Your task to perform on an android device: find snoozed emails in the gmail app Image 0: 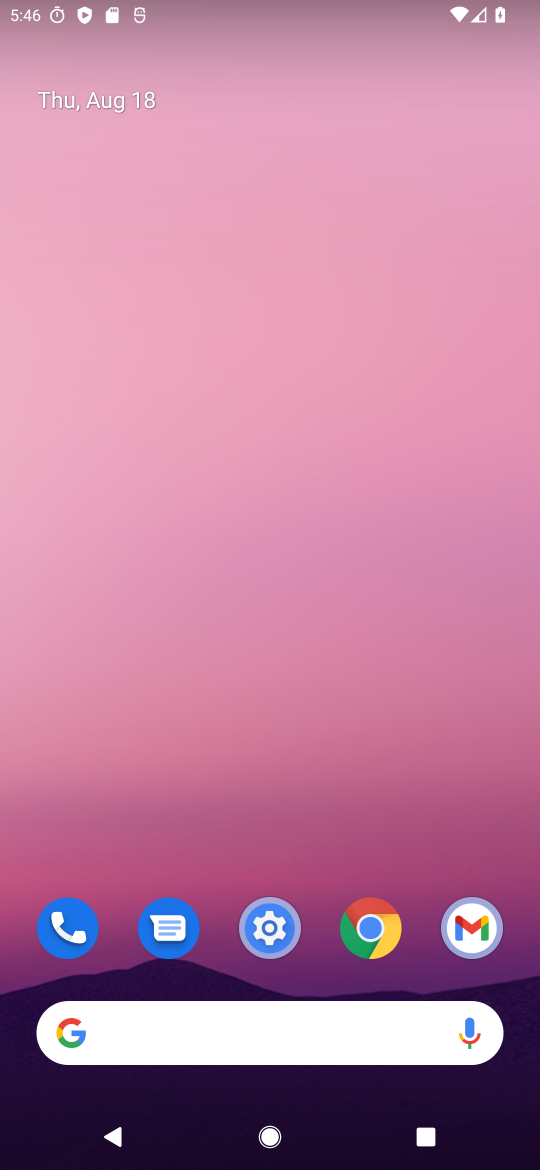
Step 0: drag from (275, 836) to (341, 18)
Your task to perform on an android device: find snoozed emails in the gmail app Image 1: 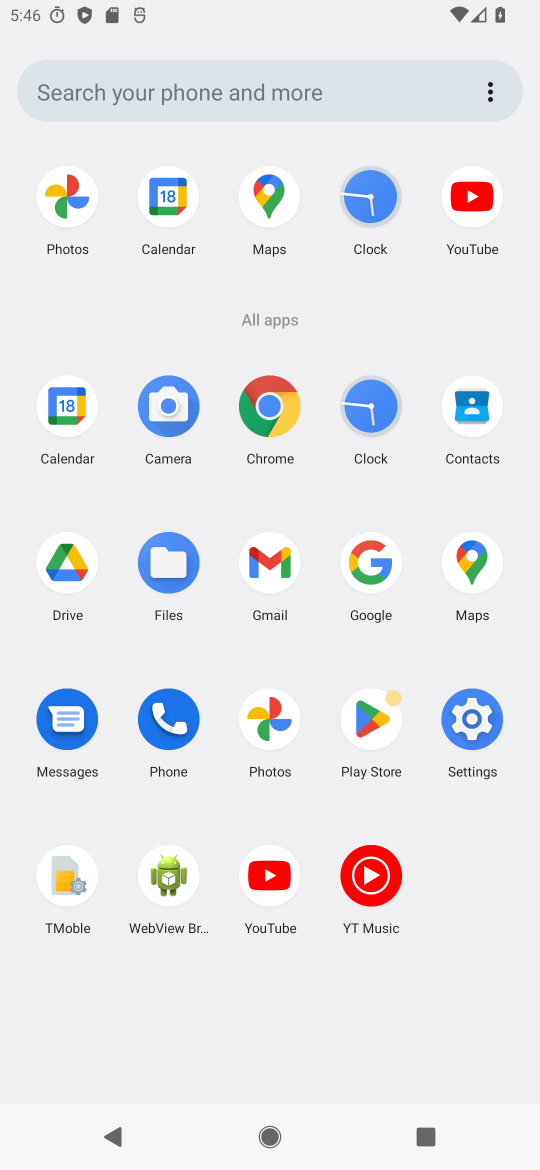
Step 1: click (267, 572)
Your task to perform on an android device: find snoozed emails in the gmail app Image 2: 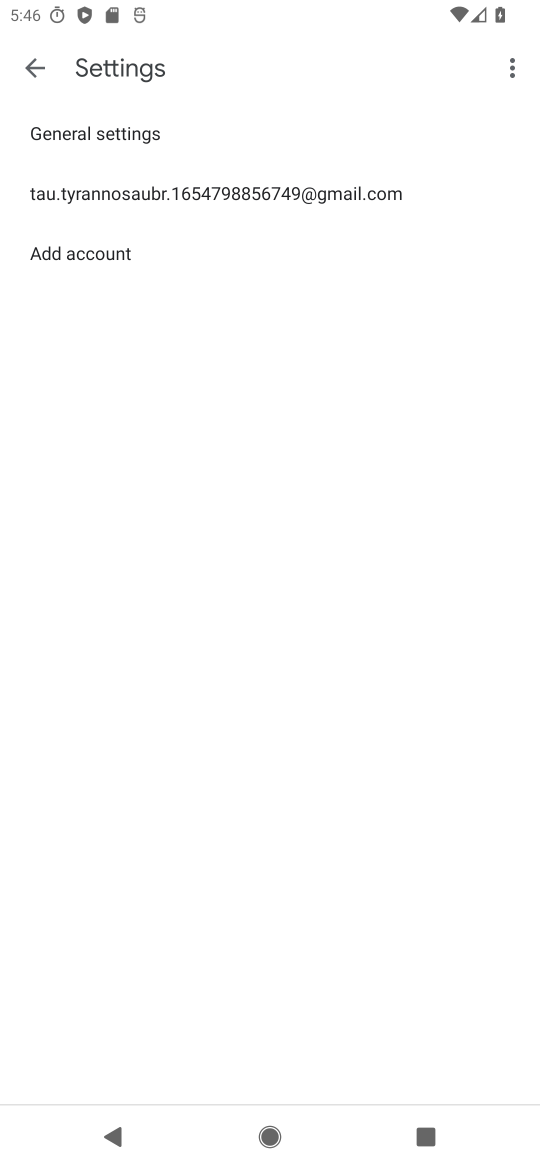
Step 2: press back button
Your task to perform on an android device: find snoozed emails in the gmail app Image 3: 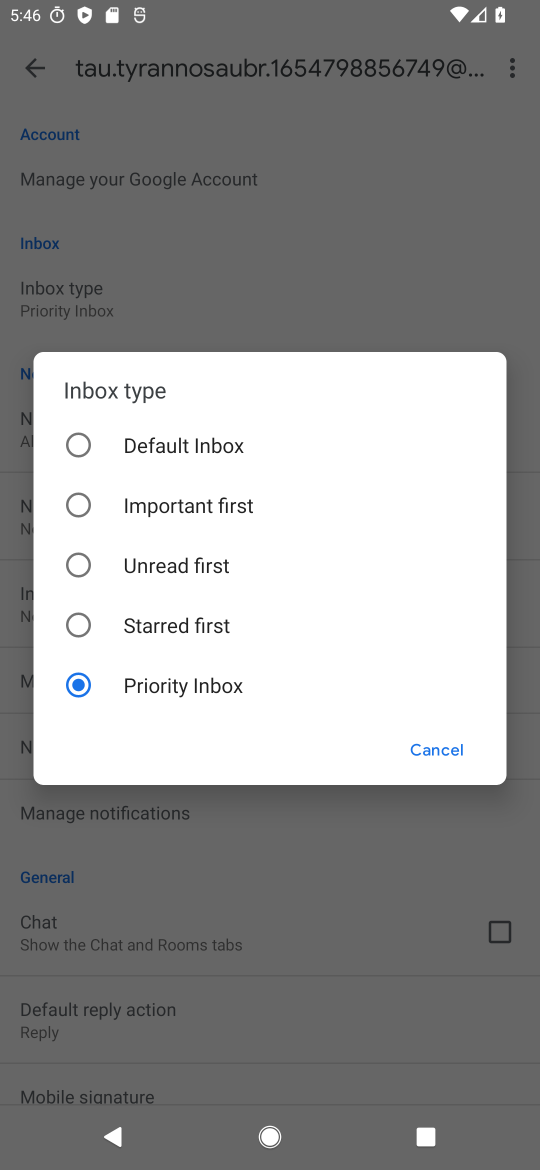
Step 3: press back button
Your task to perform on an android device: find snoozed emails in the gmail app Image 4: 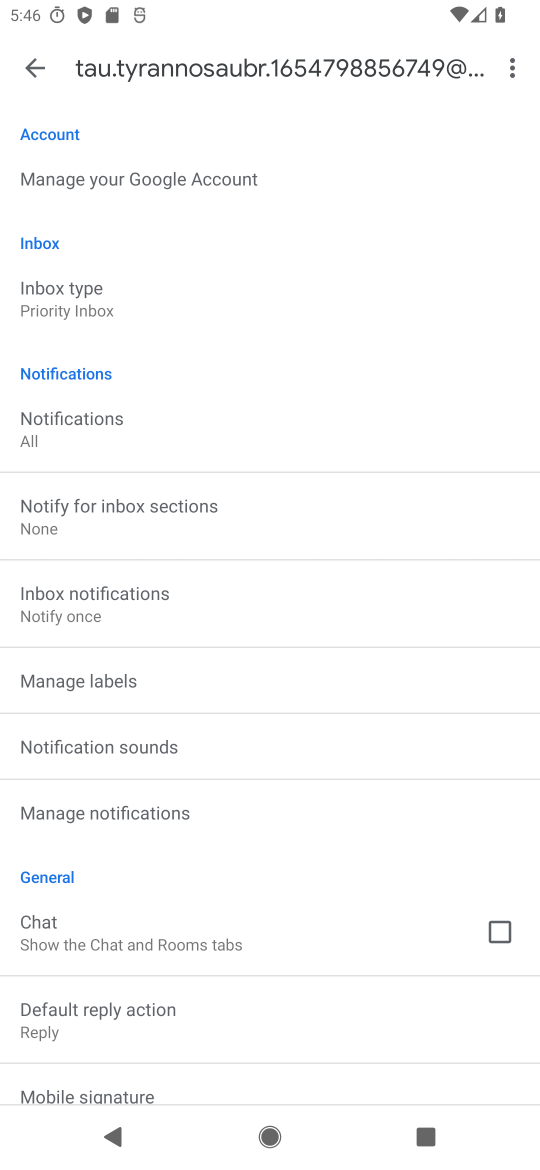
Step 4: drag from (167, 1035) to (286, 341)
Your task to perform on an android device: find snoozed emails in the gmail app Image 5: 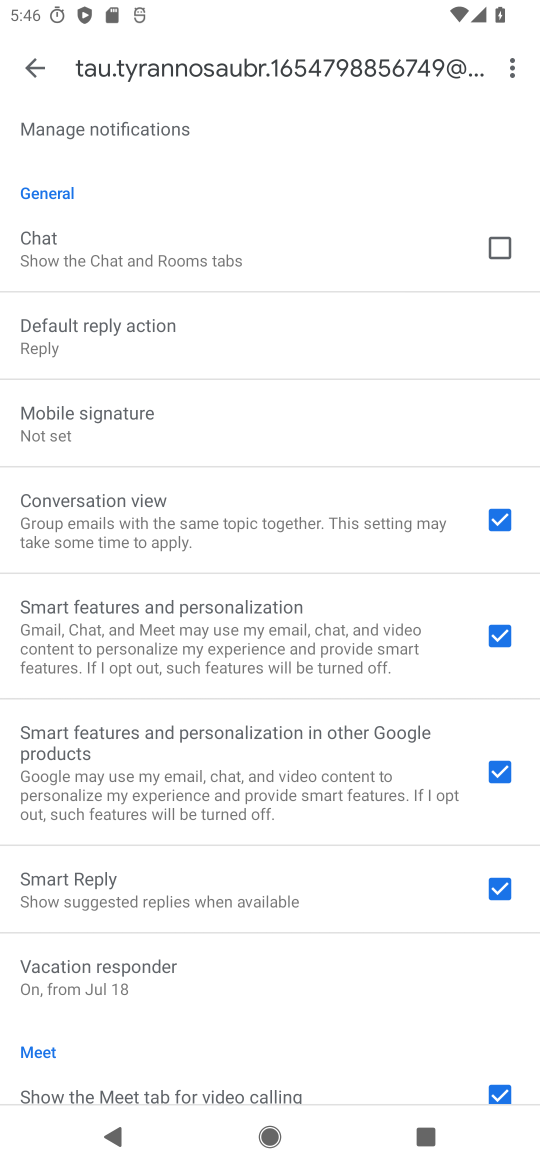
Step 5: press back button
Your task to perform on an android device: find snoozed emails in the gmail app Image 6: 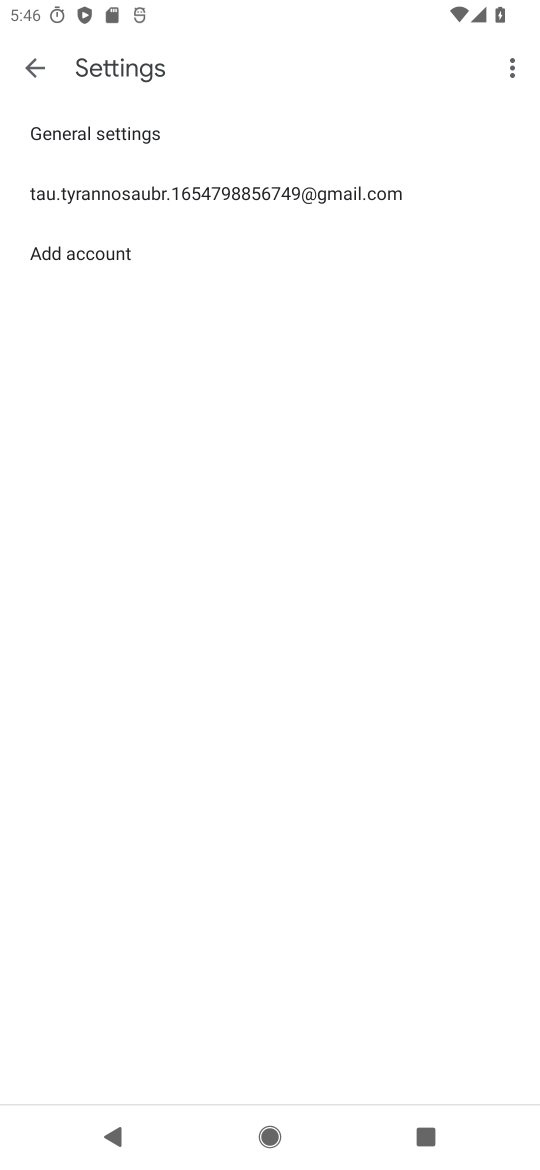
Step 6: press back button
Your task to perform on an android device: find snoozed emails in the gmail app Image 7: 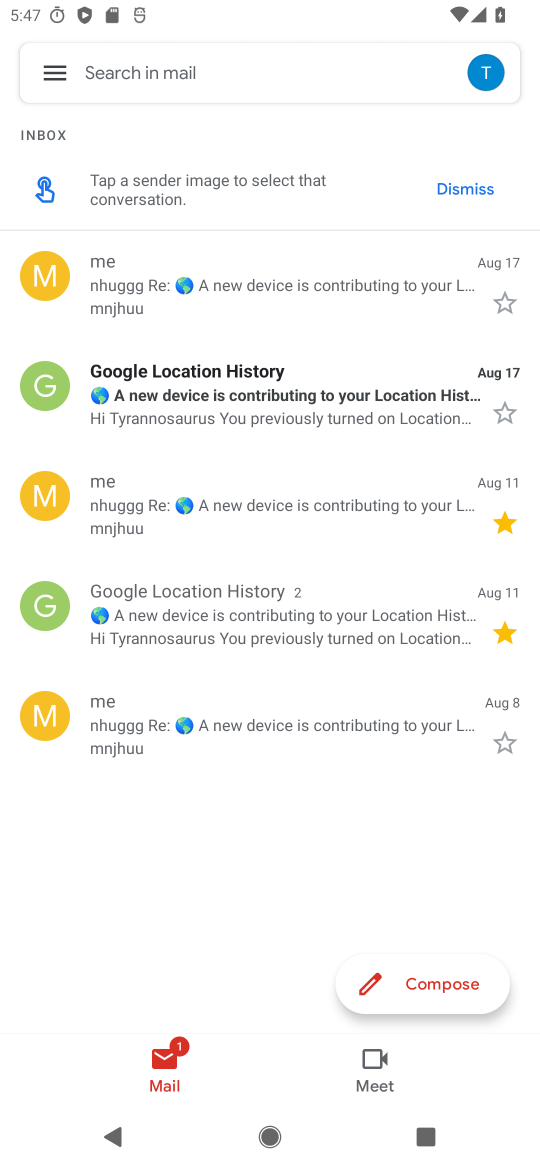
Step 7: click (37, 56)
Your task to perform on an android device: find snoozed emails in the gmail app Image 8: 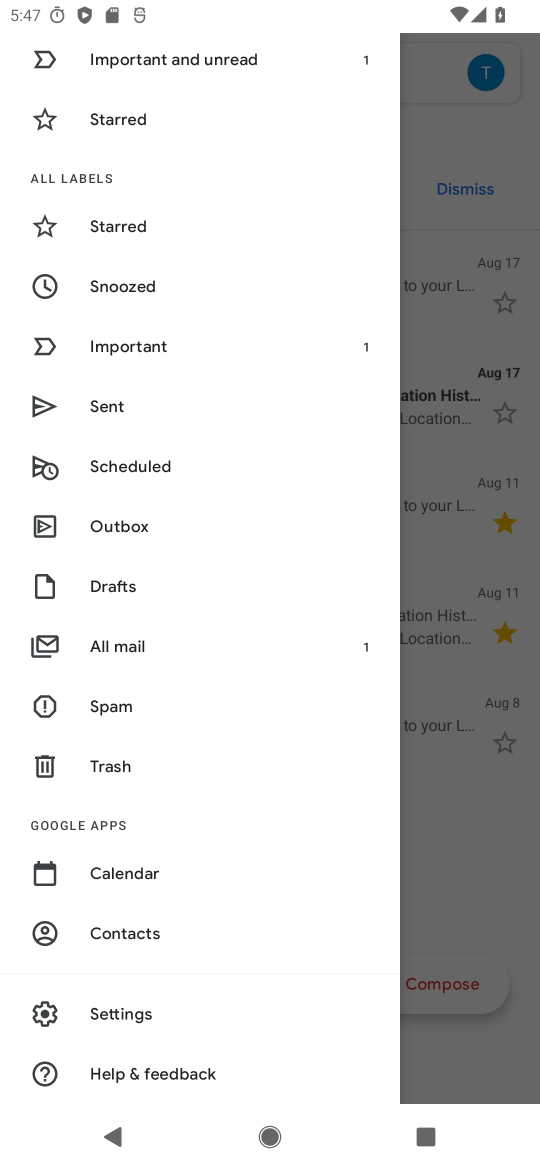
Step 8: click (128, 282)
Your task to perform on an android device: find snoozed emails in the gmail app Image 9: 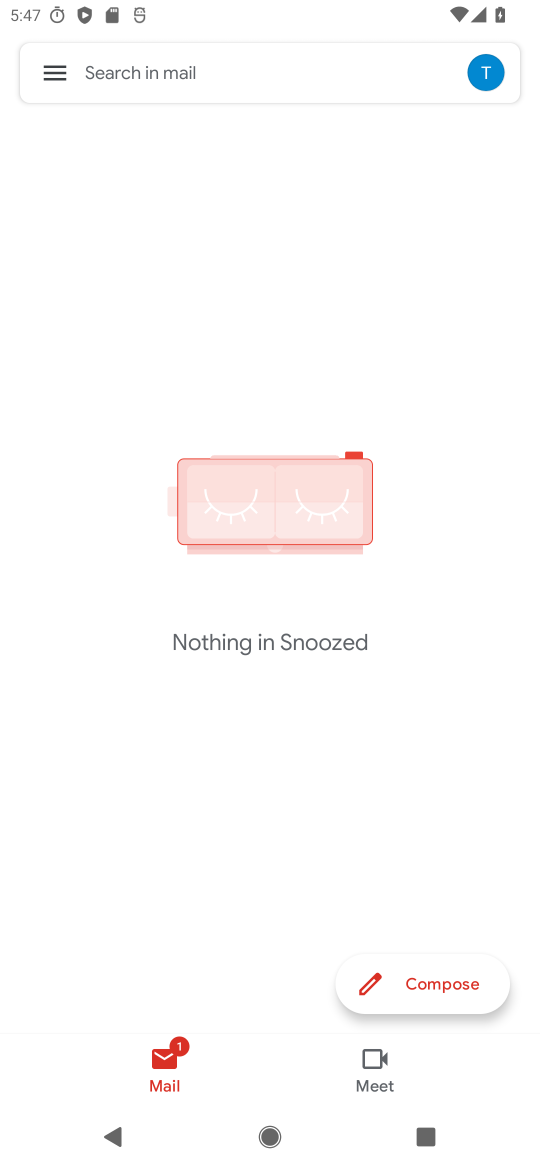
Step 9: task complete